Your task to perform on an android device: manage bookmarks in the chrome app Image 0: 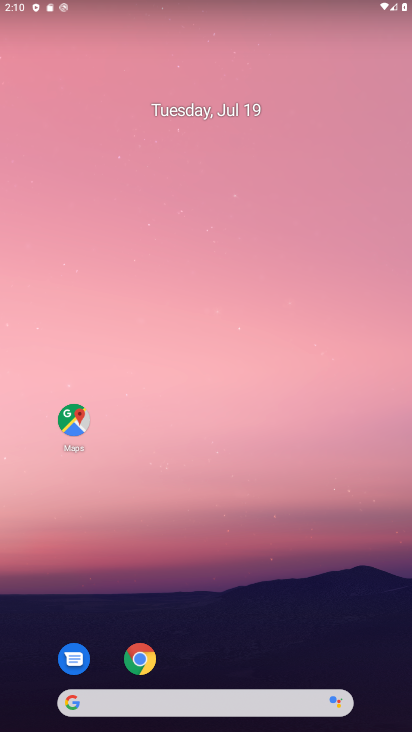
Step 0: click (144, 659)
Your task to perform on an android device: manage bookmarks in the chrome app Image 1: 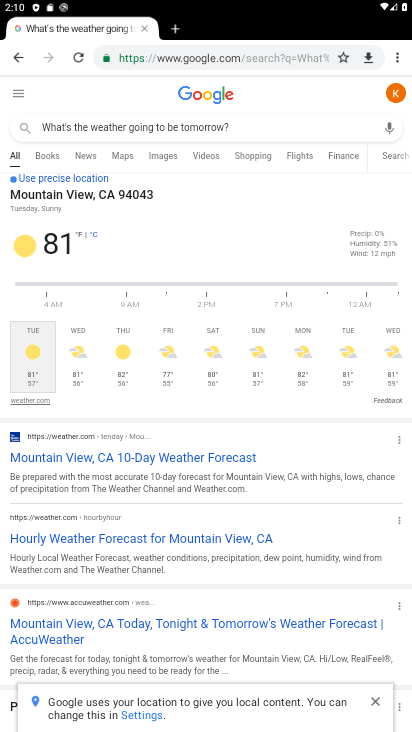
Step 1: click (389, 58)
Your task to perform on an android device: manage bookmarks in the chrome app Image 2: 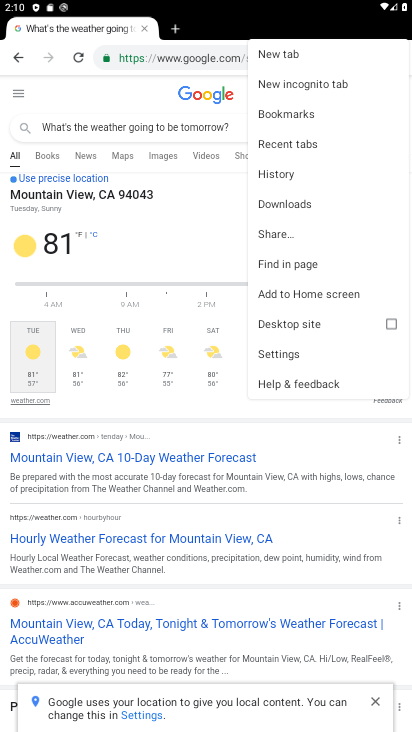
Step 2: click (347, 113)
Your task to perform on an android device: manage bookmarks in the chrome app Image 3: 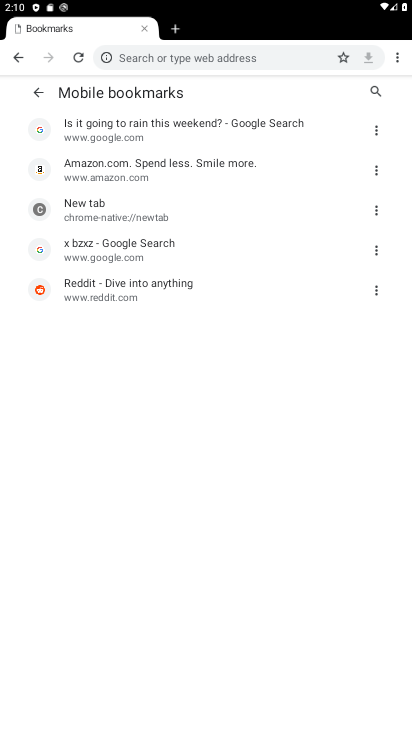
Step 3: click (214, 128)
Your task to perform on an android device: manage bookmarks in the chrome app Image 4: 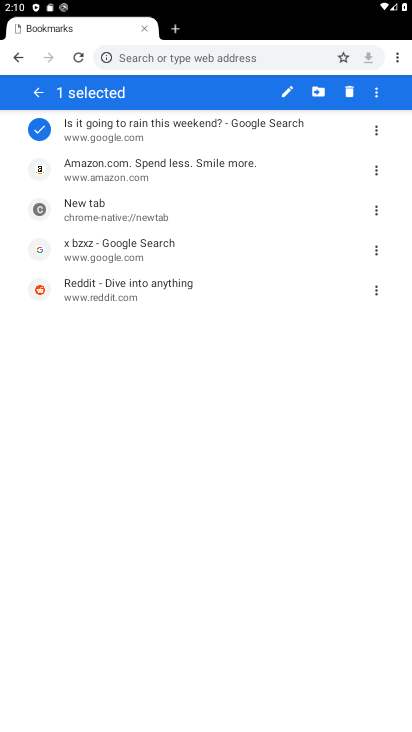
Step 4: click (321, 92)
Your task to perform on an android device: manage bookmarks in the chrome app Image 5: 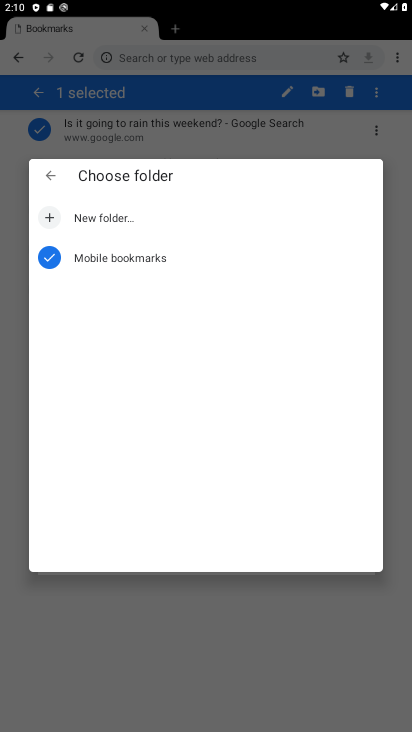
Step 5: click (222, 261)
Your task to perform on an android device: manage bookmarks in the chrome app Image 6: 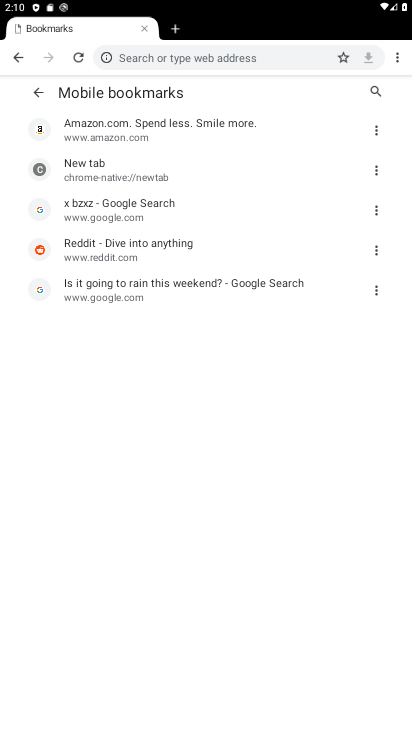
Step 6: task complete